Your task to perform on an android device: Open Google Image 0: 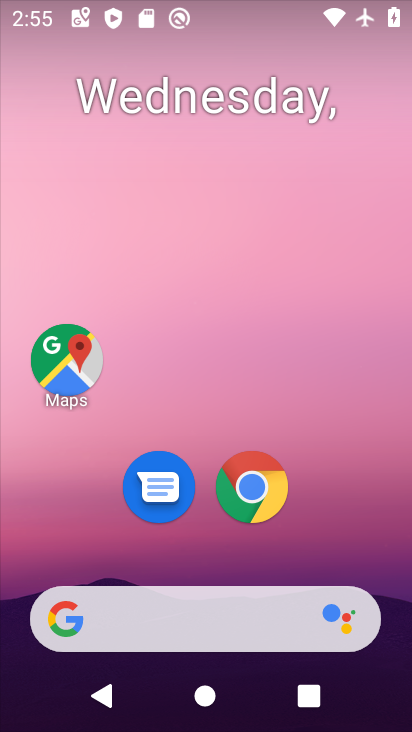
Step 0: drag from (368, 470) to (411, 1)
Your task to perform on an android device: Open Google Image 1: 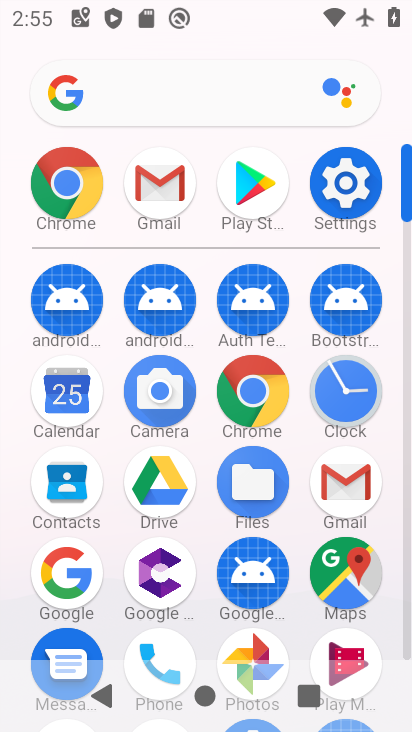
Step 1: click (61, 567)
Your task to perform on an android device: Open Google Image 2: 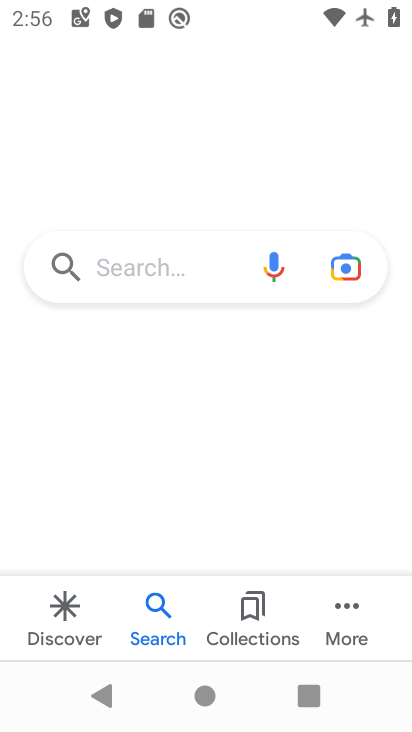
Step 2: task complete